Your task to perform on an android device: What's the weather going to be this weekend? Image 0: 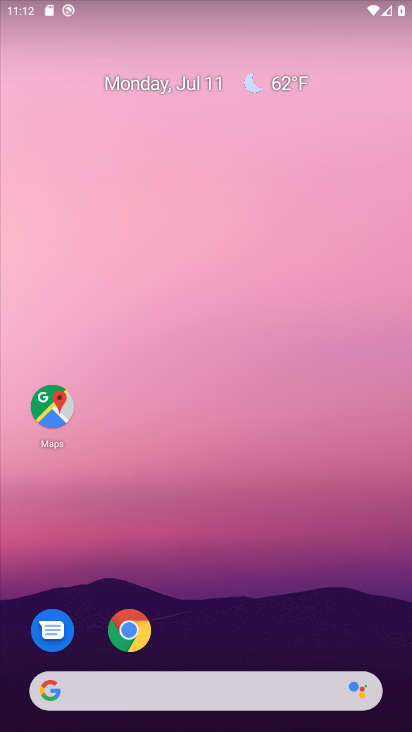
Step 0: click (236, 685)
Your task to perform on an android device: What's the weather going to be this weekend? Image 1: 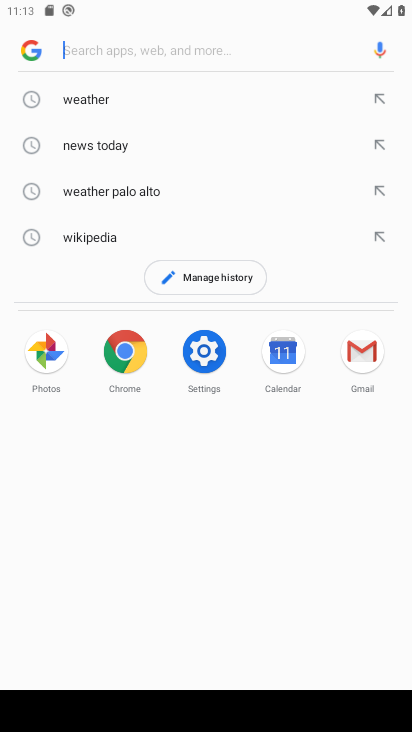
Step 1: click (94, 98)
Your task to perform on an android device: What's the weather going to be this weekend? Image 2: 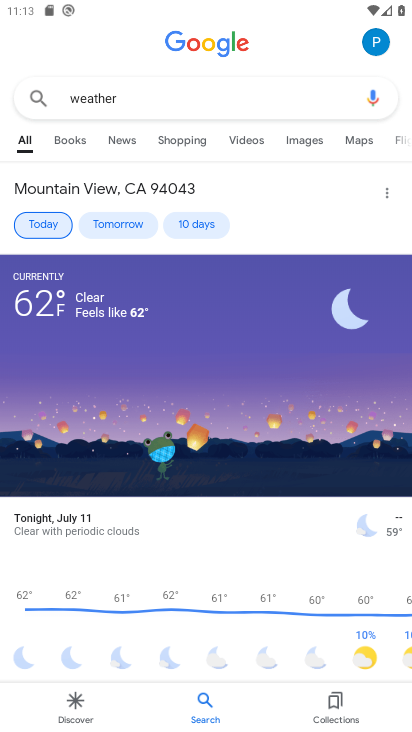
Step 2: click (58, 222)
Your task to perform on an android device: What's the weather going to be this weekend? Image 3: 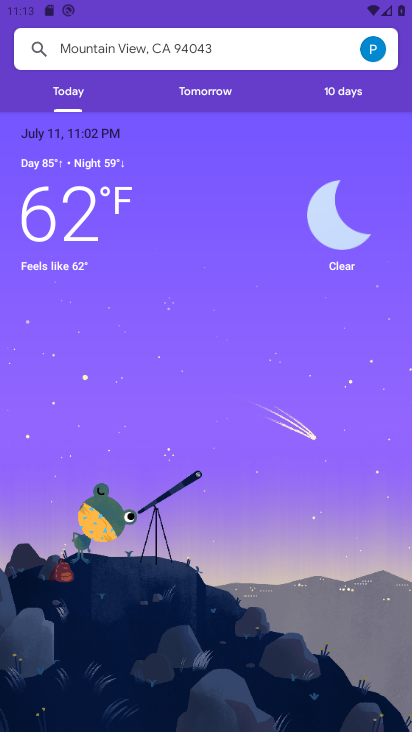
Step 3: click (332, 93)
Your task to perform on an android device: What's the weather going to be this weekend? Image 4: 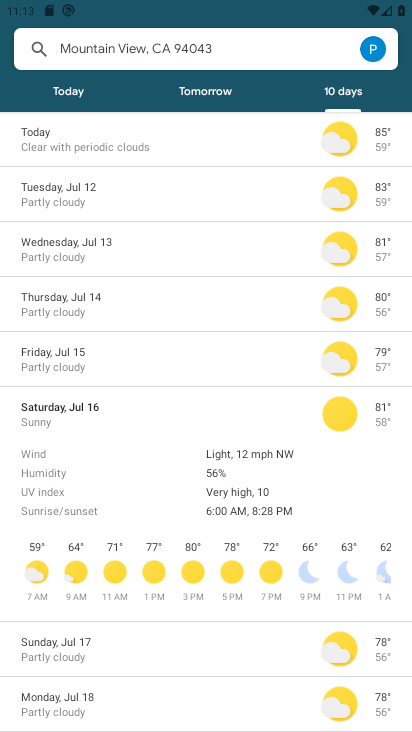
Step 4: task complete